Your task to perform on an android device: What's the weather like in Beijing? Image 0: 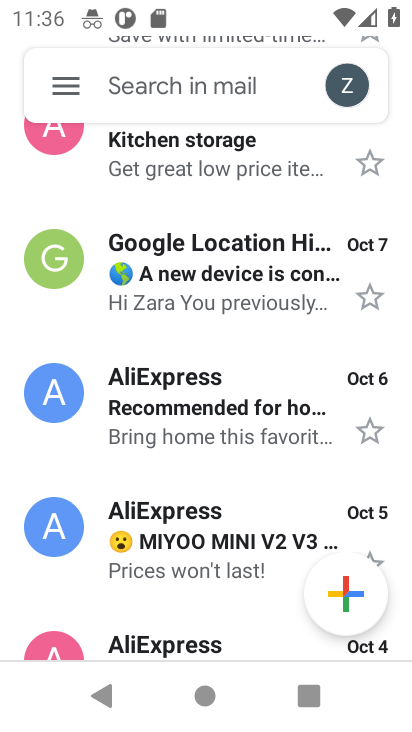
Step 0: press home button
Your task to perform on an android device: What's the weather like in Beijing? Image 1: 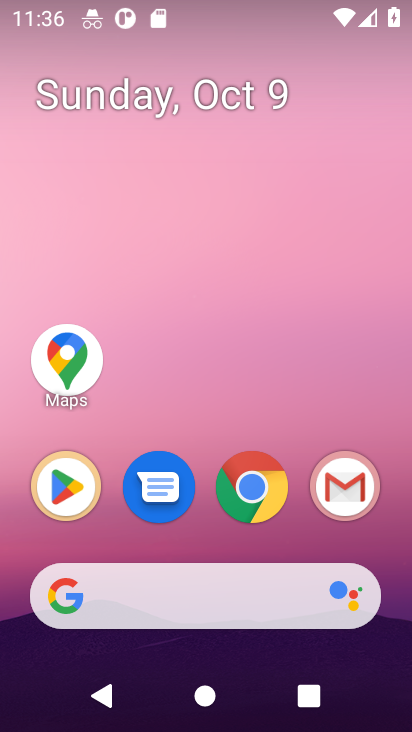
Step 1: click (250, 508)
Your task to perform on an android device: What's the weather like in Beijing? Image 2: 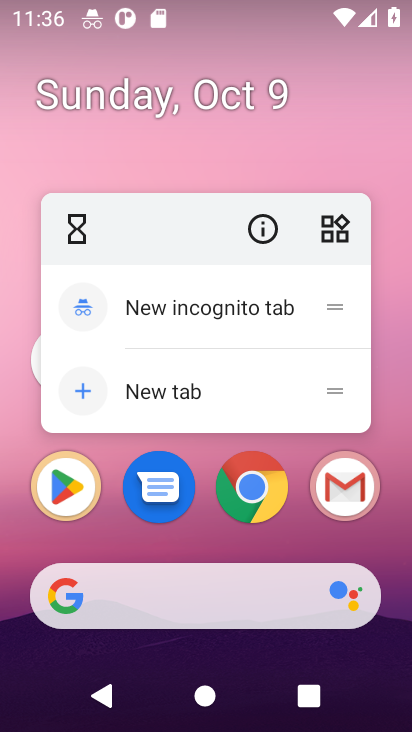
Step 2: click (250, 508)
Your task to perform on an android device: What's the weather like in Beijing? Image 3: 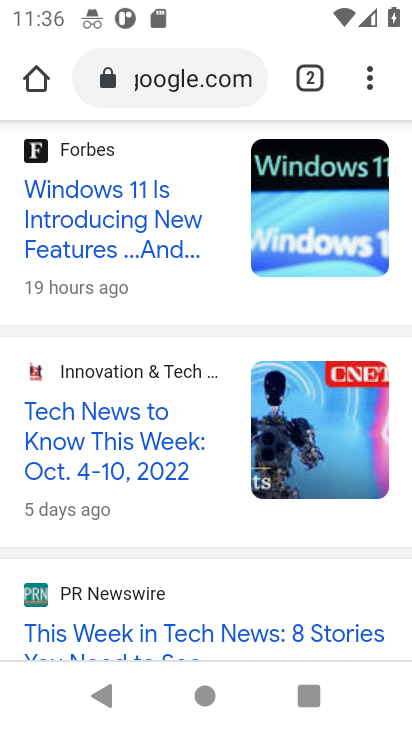
Step 3: click (224, 76)
Your task to perform on an android device: What's the weather like in Beijing? Image 4: 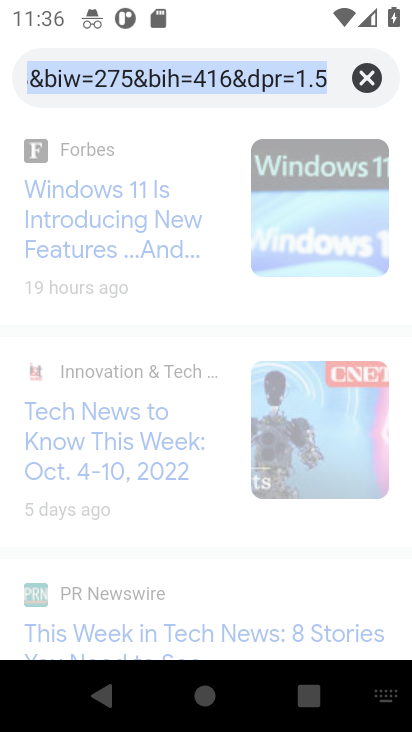
Step 4: type "weather like in Beijing"
Your task to perform on an android device: What's the weather like in Beijing? Image 5: 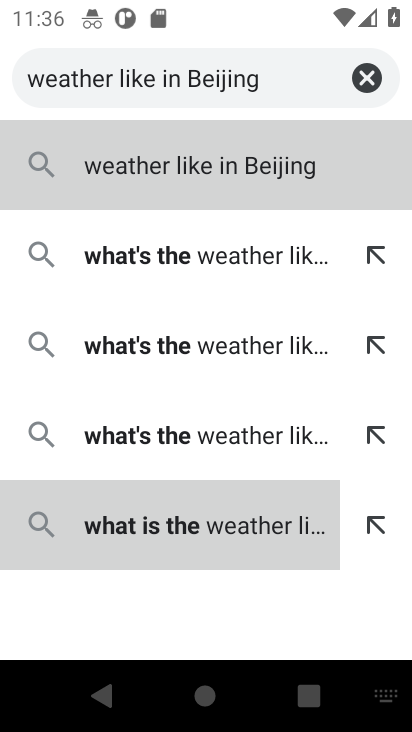
Step 5: type ""
Your task to perform on an android device: What's the weather like in Beijing? Image 6: 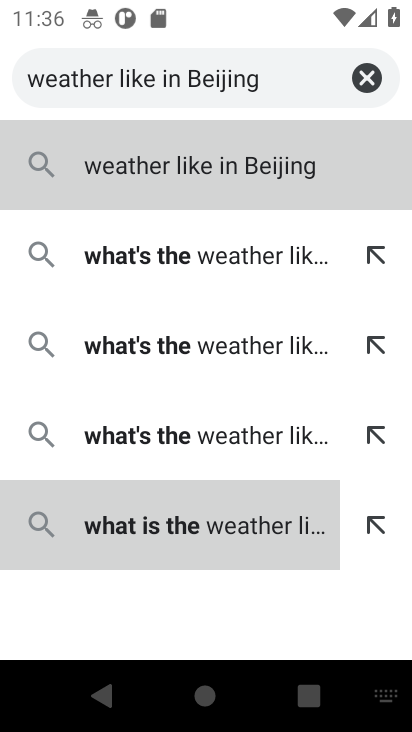
Step 6: press enter
Your task to perform on an android device: What's the weather like in Beijing? Image 7: 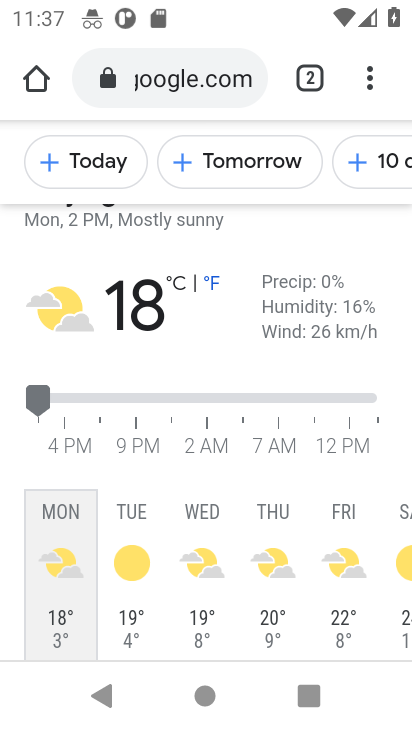
Step 7: press enter
Your task to perform on an android device: What's the weather like in Beijing? Image 8: 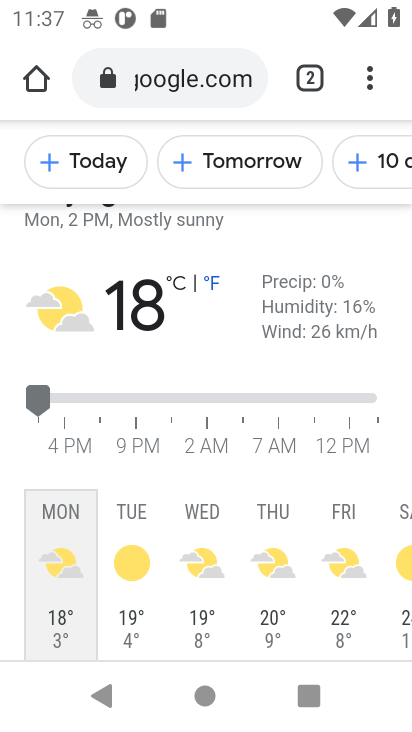
Step 8: task complete